Your task to perform on an android device: Open Google Maps and go to "Timeline" Image 0: 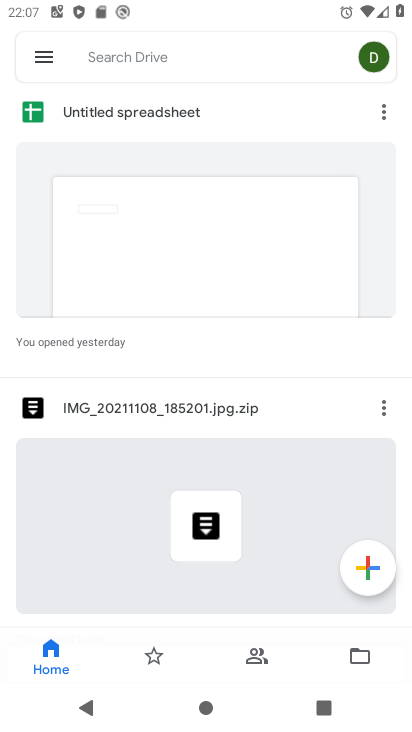
Step 0: press home button
Your task to perform on an android device: Open Google Maps and go to "Timeline" Image 1: 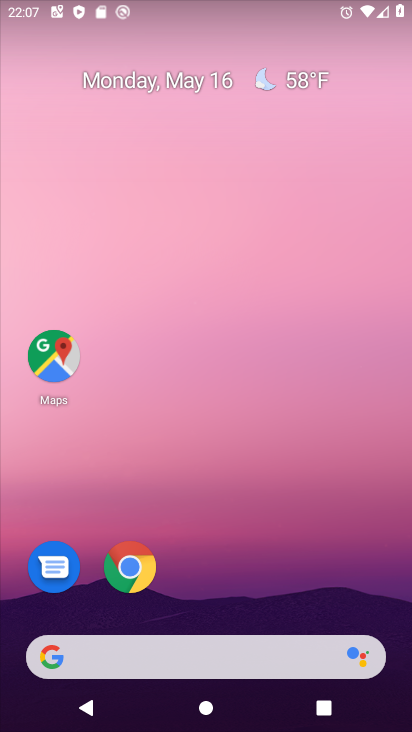
Step 1: drag from (249, 443) to (229, 268)
Your task to perform on an android device: Open Google Maps and go to "Timeline" Image 2: 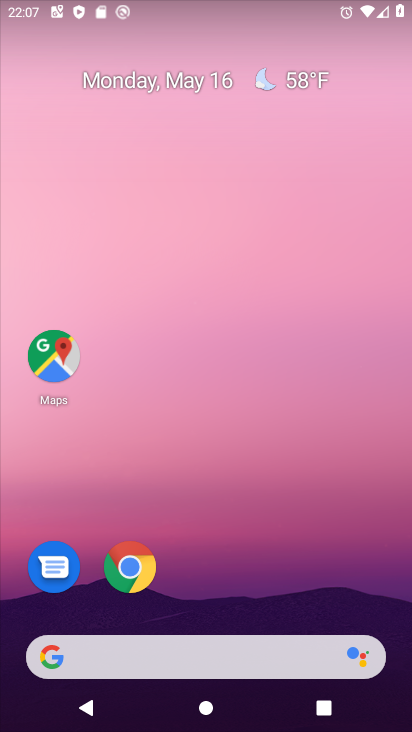
Step 2: drag from (193, 604) to (153, 311)
Your task to perform on an android device: Open Google Maps and go to "Timeline" Image 3: 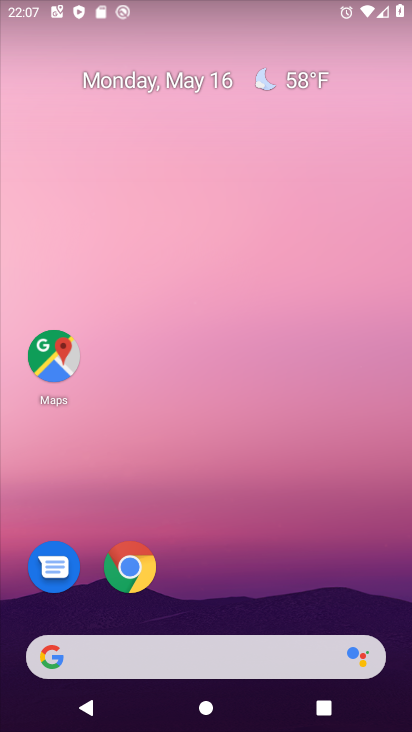
Step 3: click (59, 330)
Your task to perform on an android device: Open Google Maps and go to "Timeline" Image 4: 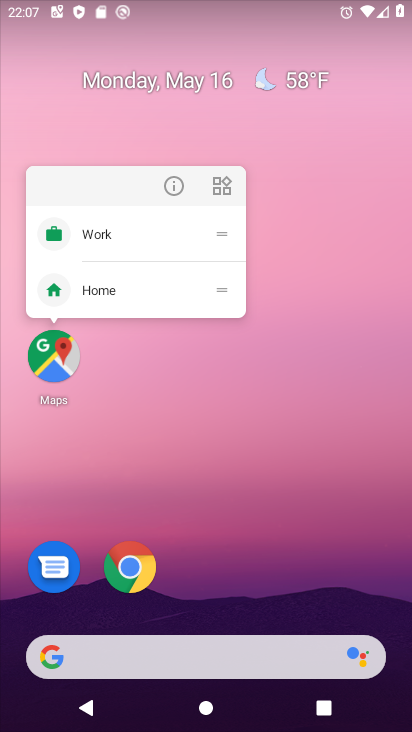
Step 4: click (46, 349)
Your task to perform on an android device: Open Google Maps and go to "Timeline" Image 5: 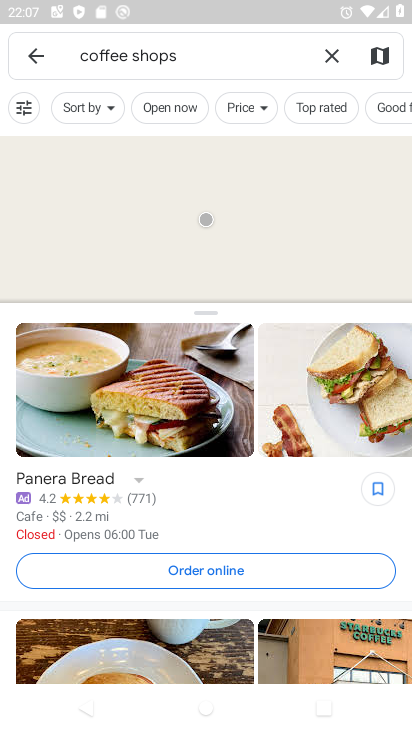
Step 5: click (335, 48)
Your task to perform on an android device: Open Google Maps and go to "Timeline" Image 6: 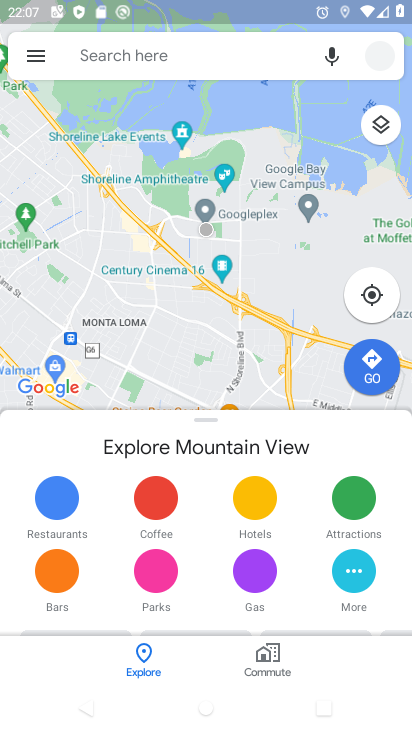
Step 6: click (37, 44)
Your task to perform on an android device: Open Google Maps and go to "Timeline" Image 7: 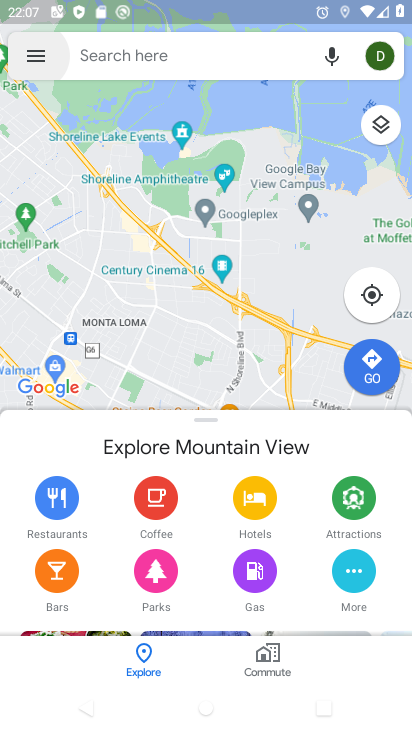
Step 7: click (42, 50)
Your task to perform on an android device: Open Google Maps and go to "Timeline" Image 8: 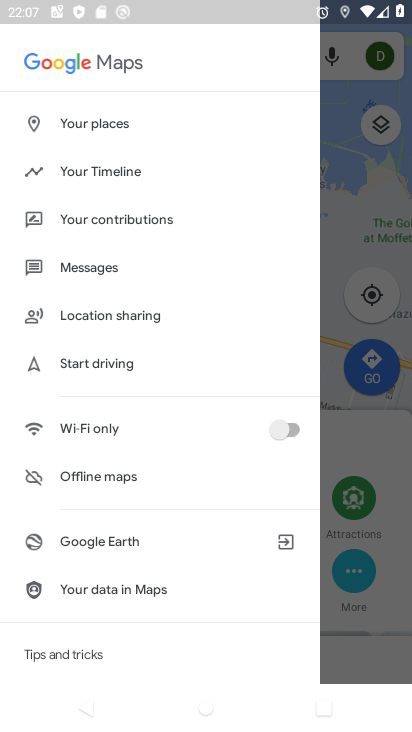
Step 8: click (100, 172)
Your task to perform on an android device: Open Google Maps and go to "Timeline" Image 9: 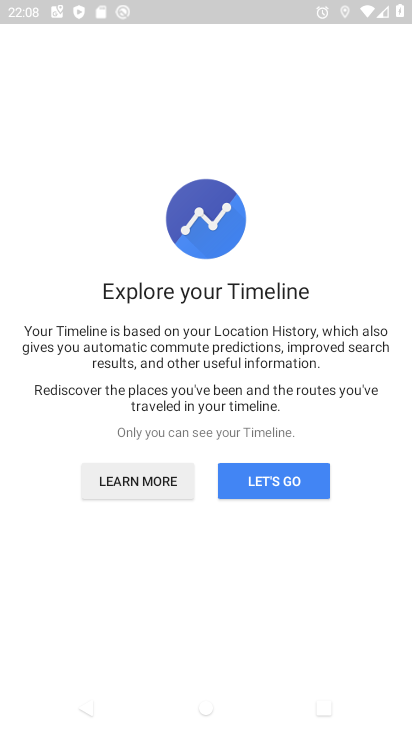
Step 9: click (272, 487)
Your task to perform on an android device: Open Google Maps and go to "Timeline" Image 10: 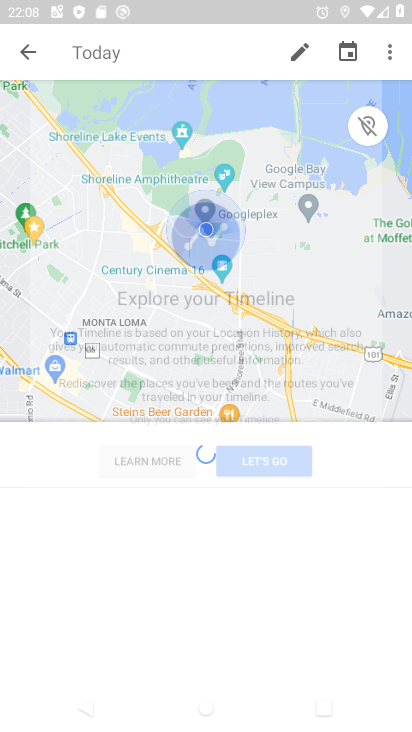
Step 10: task complete